Your task to perform on an android device: turn on improve location accuracy Image 0: 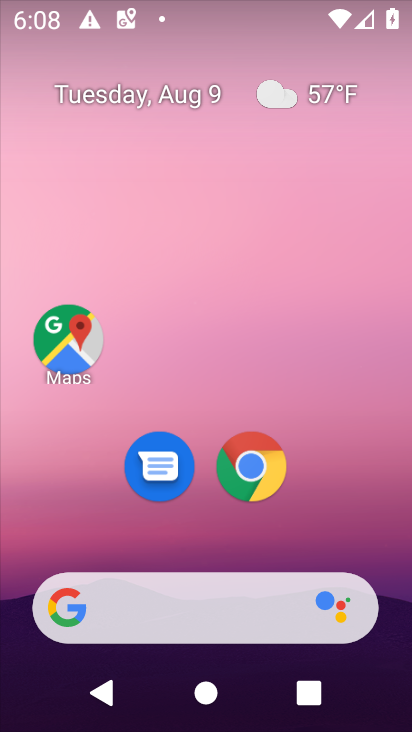
Step 0: drag from (216, 367) to (232, 24)
Your task to perform on an android device: turn on improve location accuracy Image 1: 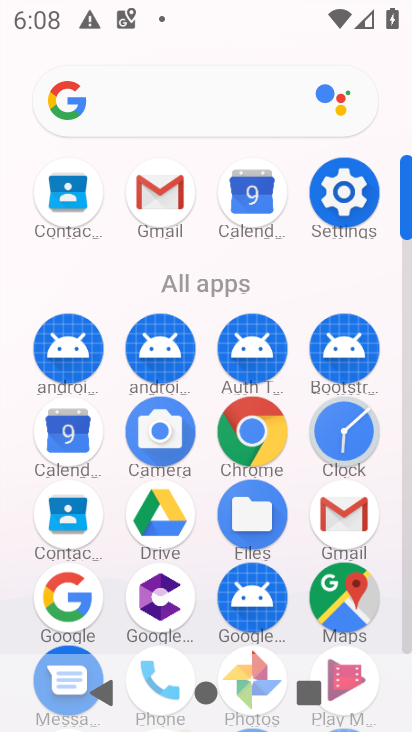
Step 1: click (340, 183)
Your task to perform on an android device: turn on improve location accuracy Image 2: 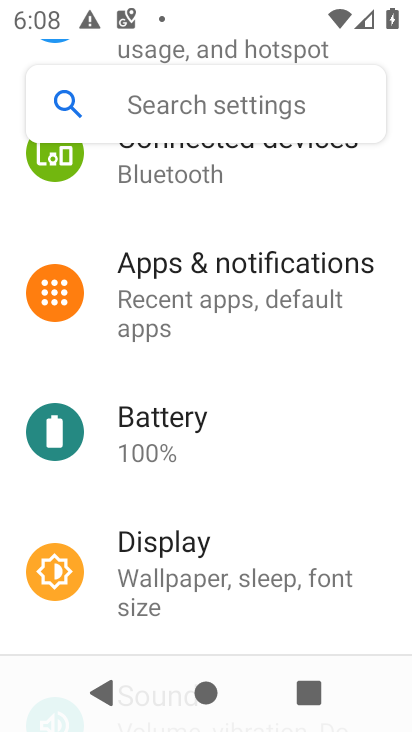
Step 2: drag from (219, 371) to (227, 214)
Your task to perform on an android device: turn on improve location accuracy Image 3: 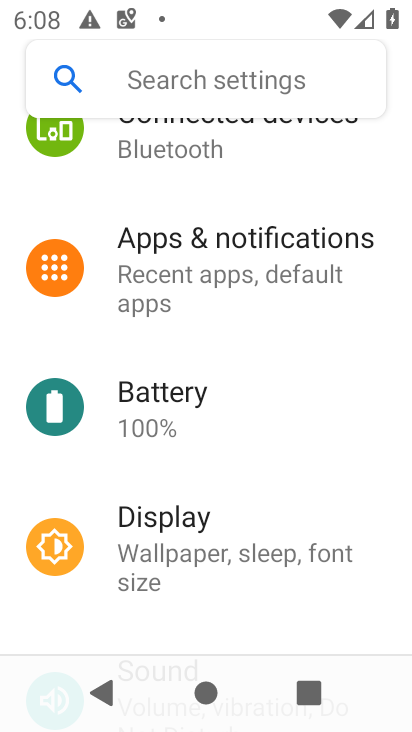
Step 3: drag from (224, 365) to (171, 699)
Your task to perform on an android device: turn on improve location accuracy Image 4: 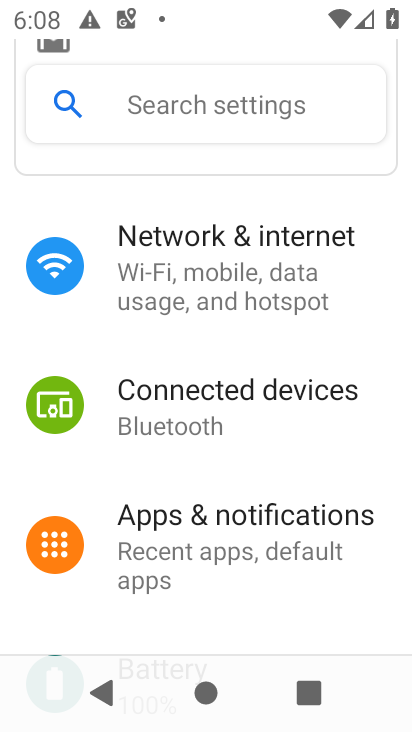
Step 4: drag from (217, 543) to (258, 196)
Your task to perform on an android device: turn on improve location accuracy Image 5: 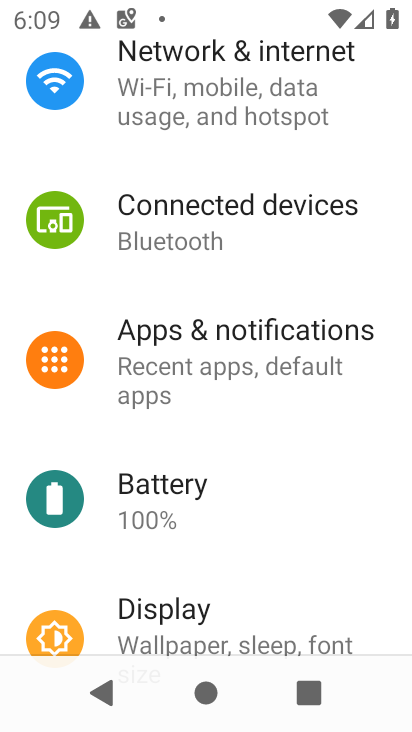
Step 5: drag from (233, 468) to (244, 178)
Your task to perform on an android device: turn on improve location accuracy Image 6: 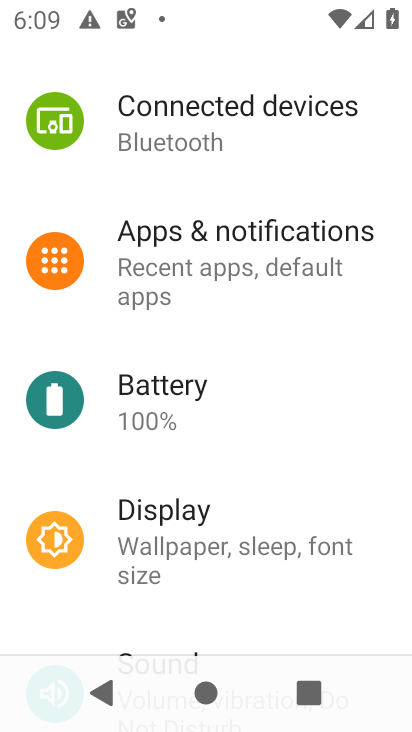
Step 6: drag from (203, 530) to (213, 234)
Your task to perform on an android device: turn on improve location accuracy Image 7: 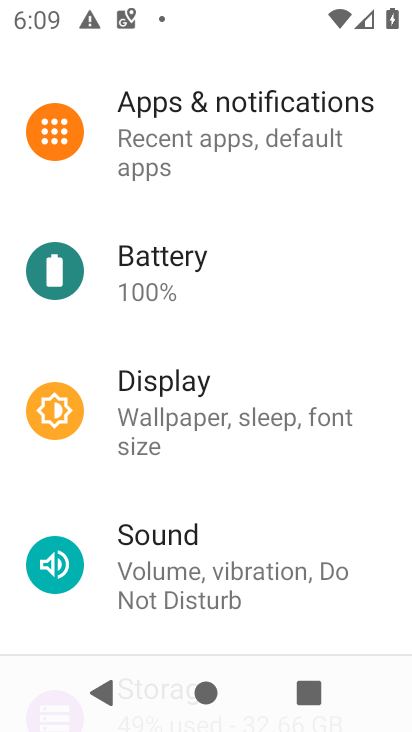
Step 7: drag from (170, 566) to (211, 244)
Your task to perform on an android device: turn on improve location accuracy Image 8: 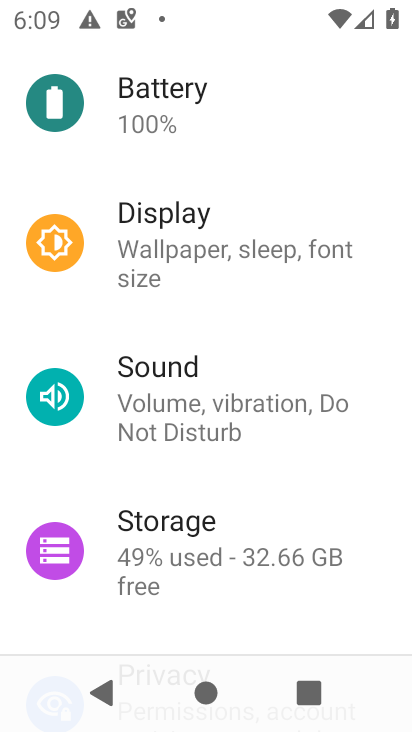
Step 8: drag from (185, 475) to (216, 267)
Your task to perform on an android device: turn on improve location accuracy Image 9: 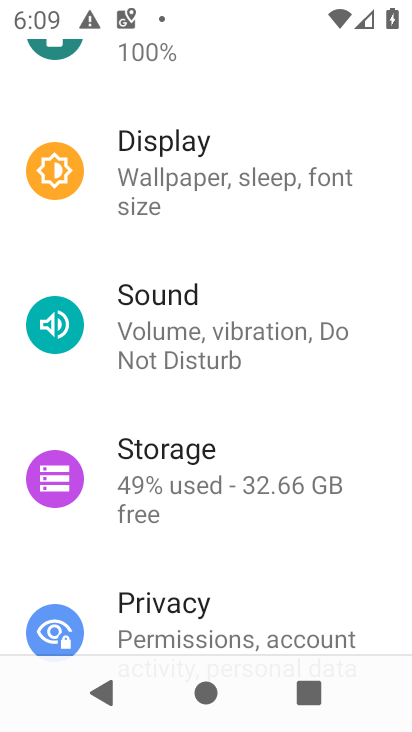
Step 9: drag from (233, 498) to (250, 319)
Your task to perform on an android device: turn on improve location accuracy Image 10: 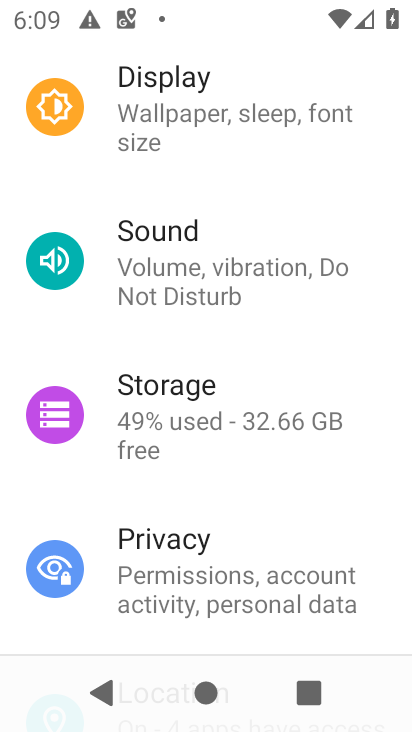
Step 10: drag from (226, 504) to (235, 311)
Your task to perform on an android device: turn on improve location accuracy Image 11: 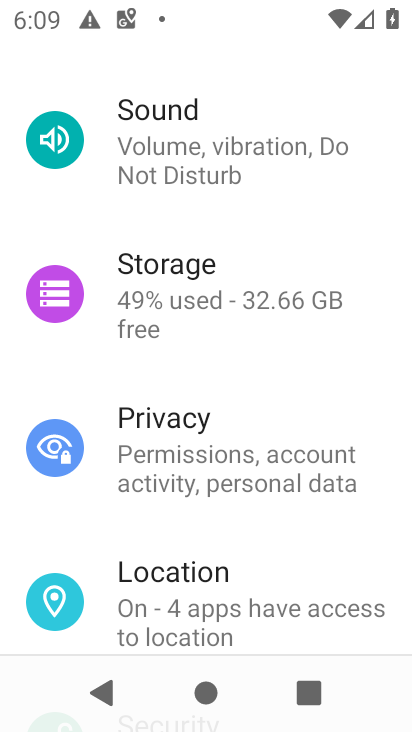
Step 11: click (161, 593)
Your task to perform on an android device: turn on improve location accuracy Image 12: 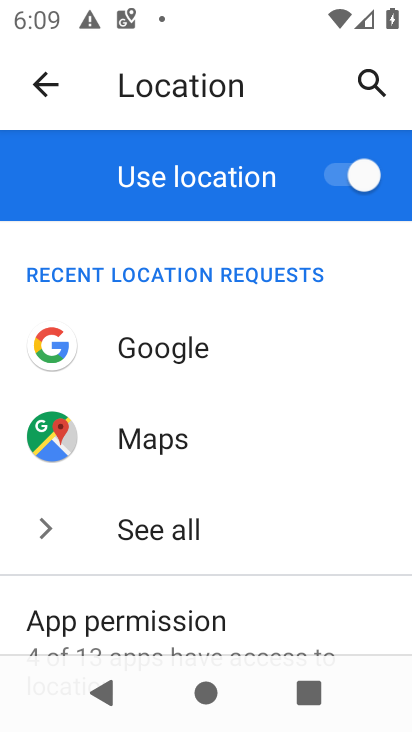
Step 12: click (254, 173)
Your task to perform on an android device: turn on improve location accuracy Image 13: 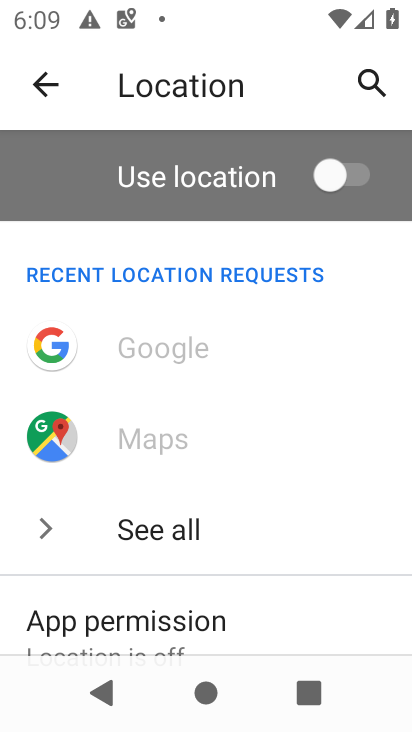
Step 13: click (356, 187)
Your task to perform on an android device: turn on improve location accuracy Image 14: 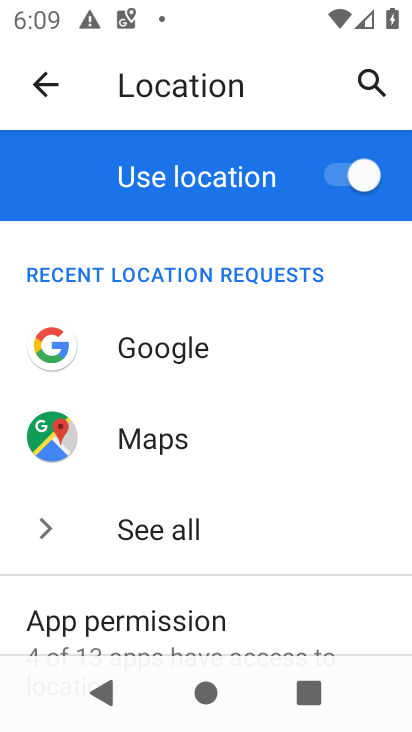
Step 14: drag from (256, 588) to (222, 267)
Your task to perform on an android device: turn on improve location accuracy Image 15: 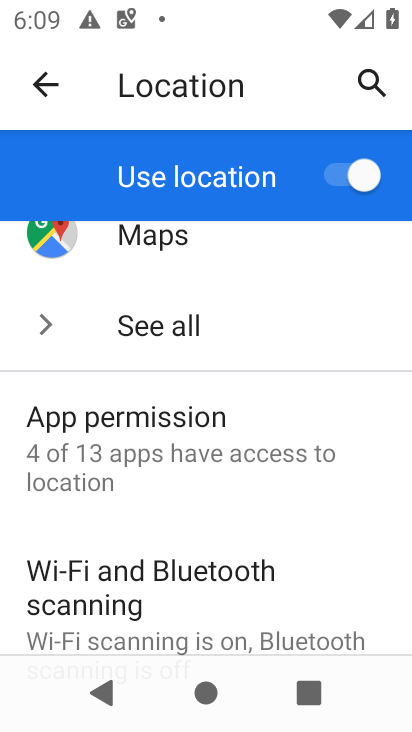
Step 15: drag from (175, 599) to (184, 309)
Your task to perform on an android device: turn on improve location accuracy Image 16: 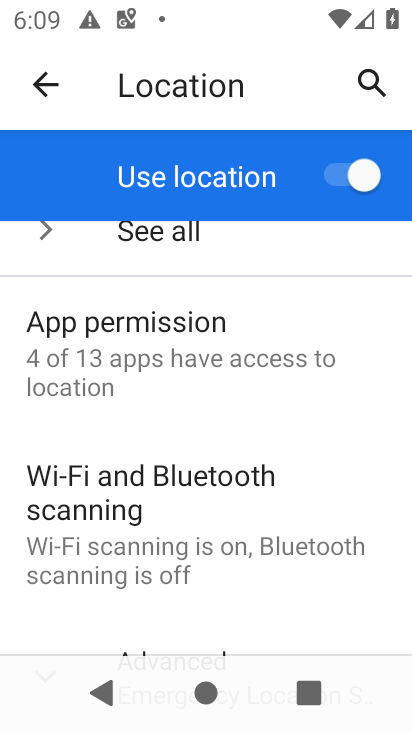
Step 16: drag from (197, 608) to (227, 239)
Your task to perform on an android device: turn on improve location accuracy Image 17: 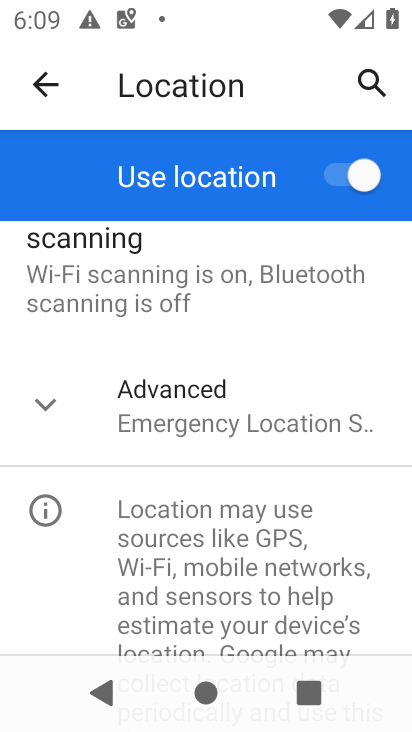
Step 17: drag from (83, 523) to (124, 324)
Your task to perform on an android device: turn on improve location accuracy Image 18: 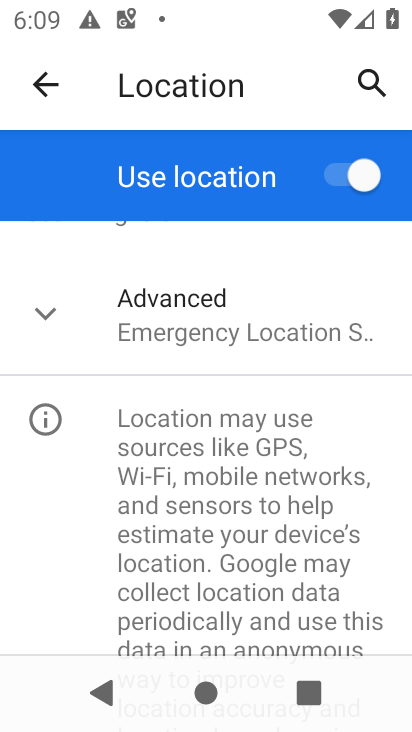
Step 18: click (110, 307)
Your task to perform on an android device: turn on improve location accuracy Image 19: 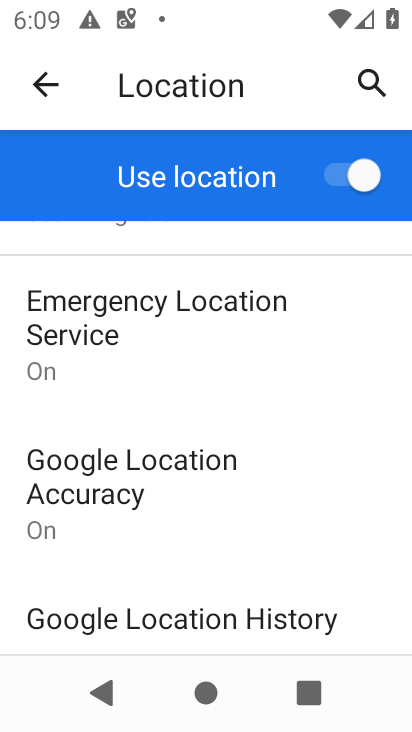
Step 19: click (203, 492)
Your task to perform on an android device: turn on improve location accuracy Image 20: 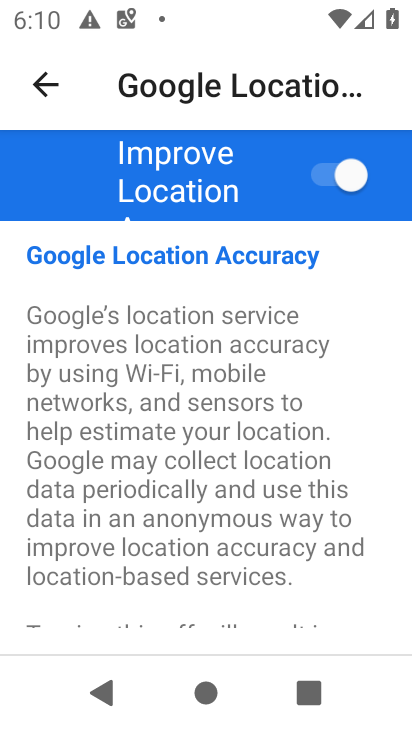
Step 20: task complete